Your task to perform on an android device: Open Google Chrome and click the shortcut for Amazon.com Image 0: 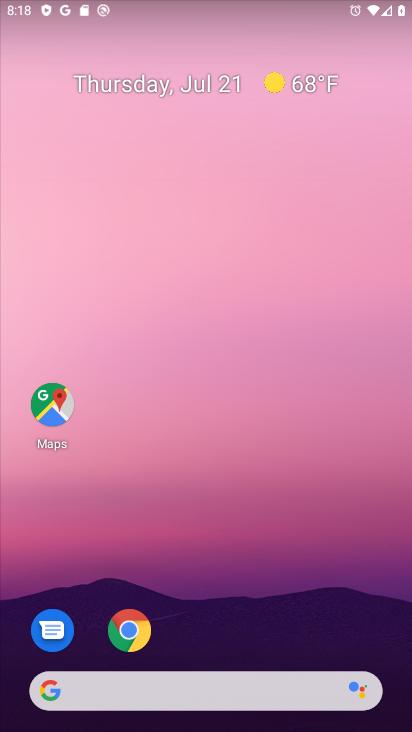
Step 0: drag from (341, 541) to (398, 159)
Your task to perform on an android device: Open Google Chrome and click the shortcut for Amazon.com Image 1: 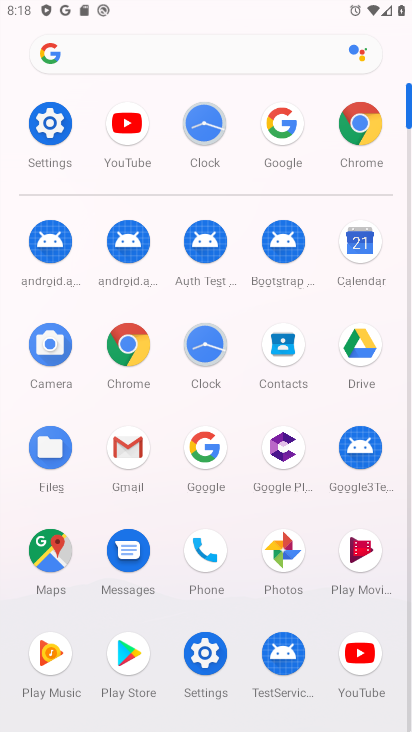
Step 1: click (368, 129)
Your task to perform on an android device: Open Google Chrome and click the shortcut for Amazon.com Image 2: 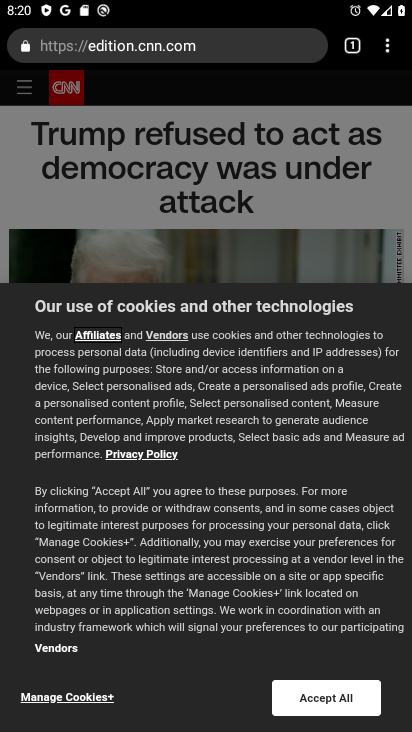
Step 2: click (240, 44)
Your task to perform on an android device: Open Google Chrome and click the shortcut for Amazon.com Image 3: 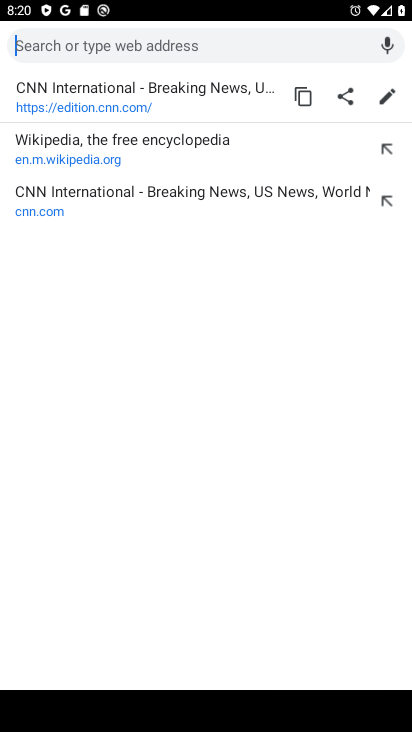
Step 3: type "Amazon.com"
Your task to perform on an android device: Open Google Chrome and click the shortcut for Amazon.com Image 4: 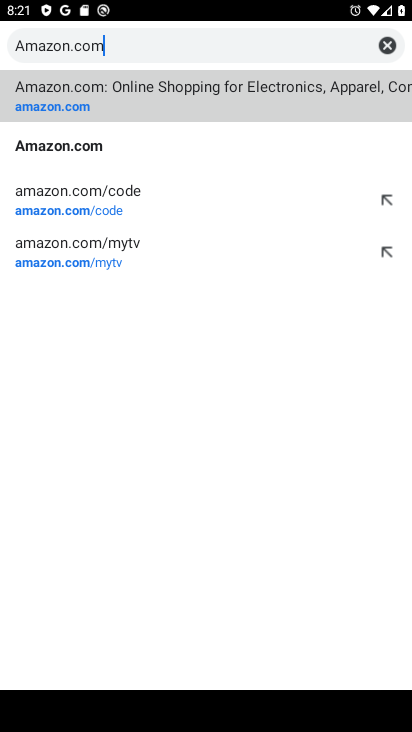
Step 4: click (83, 143)
Your task to perform on an android device: Open Google Chrome and click the shortcut for Amazon.com Image 5: 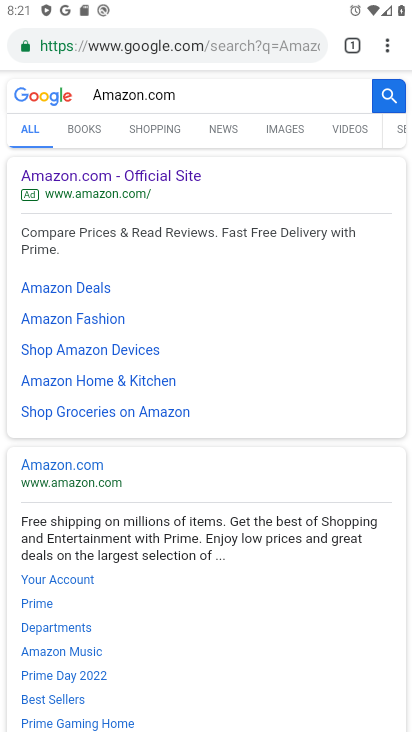
Step 5: click (97, 176)
Your task to perform on an android device: Open Google Chrome and click the shortcut for Amazon.com Image 6: 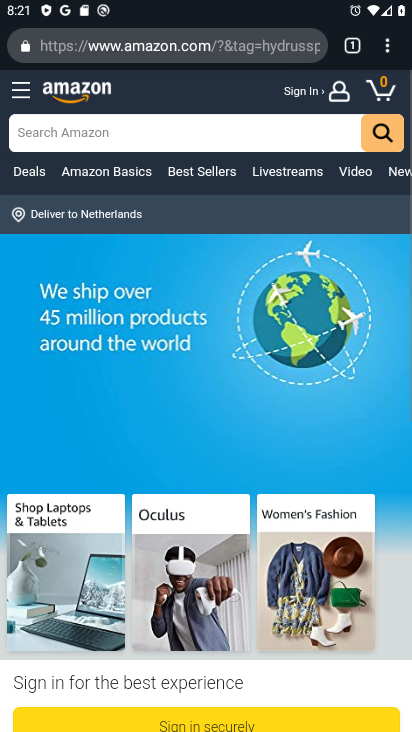
Step 6: task complete